Your task to perform on an android device: Open the calendar and show me this week's events? Image 0: 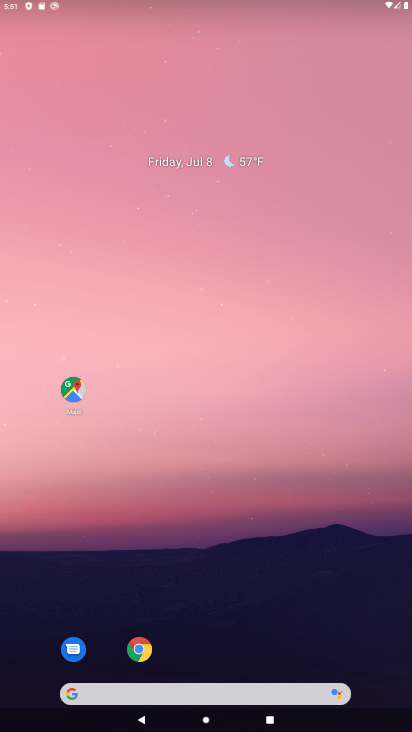
Step 0: click (351, 14)
Your task to perform on an android device: Open the calendar and show me this week's events? Image 1: 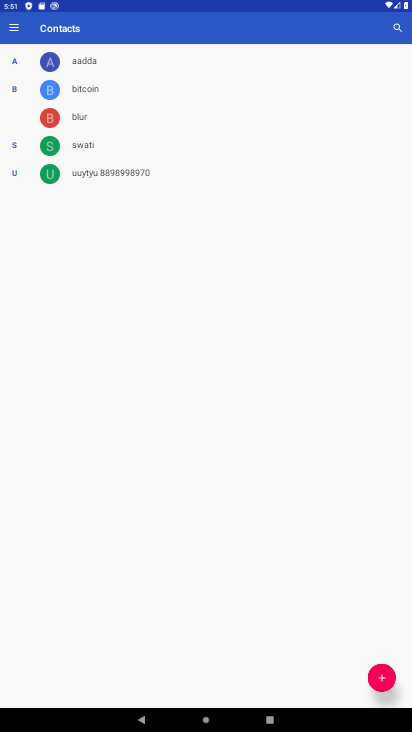
Step 1: press home button
Your task to perform on an android device: Open the calendar and show me this week's events? Image 2: 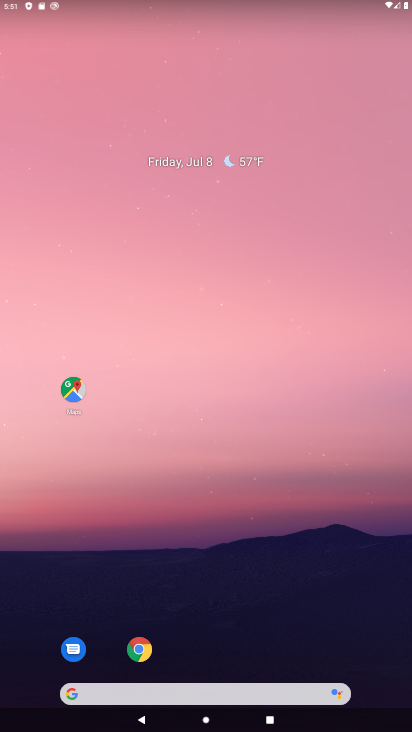
Step 2: drag from (242, 641) to (288, 6)
Your task to perform on an android device: Open the calendar and show me this week's events? Image 3: 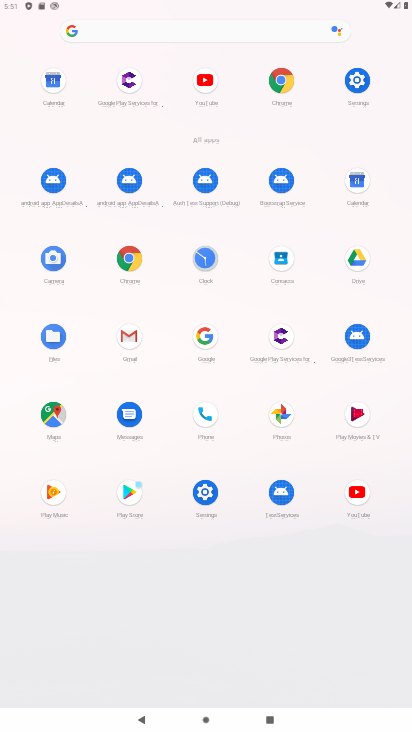
Step 3: click (358, 181)
Your task to perform on an android device: Open the calendar and show me this week's events? Image 4: 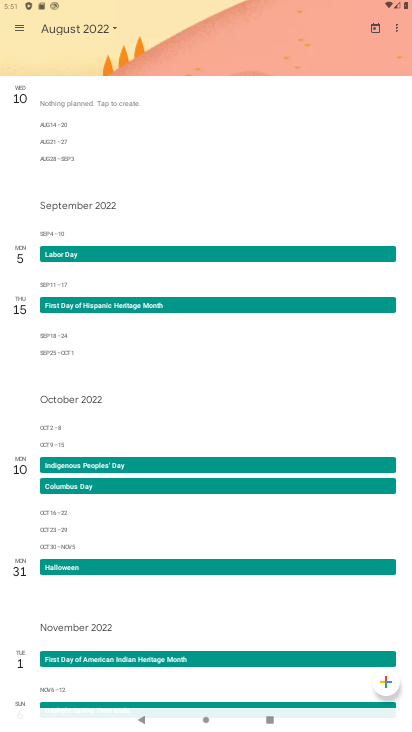
Step 4: click (113, 22)
Your task to perform on an android device: Open the calendar and show me this week's events? Image 5: 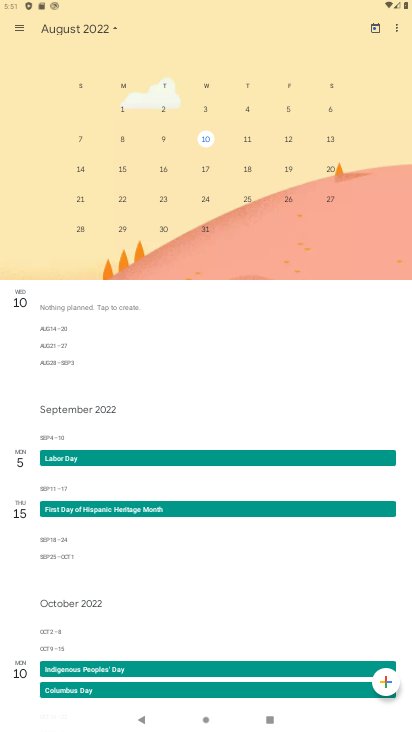
Step 5: drag from (77, 184) to (362, 209)
Your task to perform on an android device: Open the calendar and show me this week's events? Image 6: 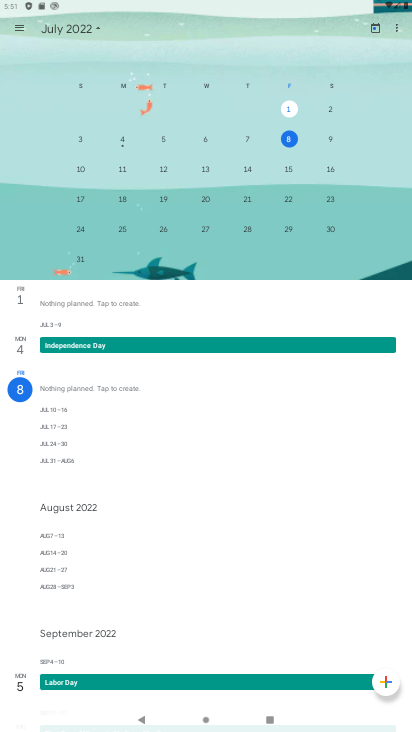
Step 6: click (205, 139)
Your task to perform on an android device: Open the calendar and show me this week's events? Image 7: 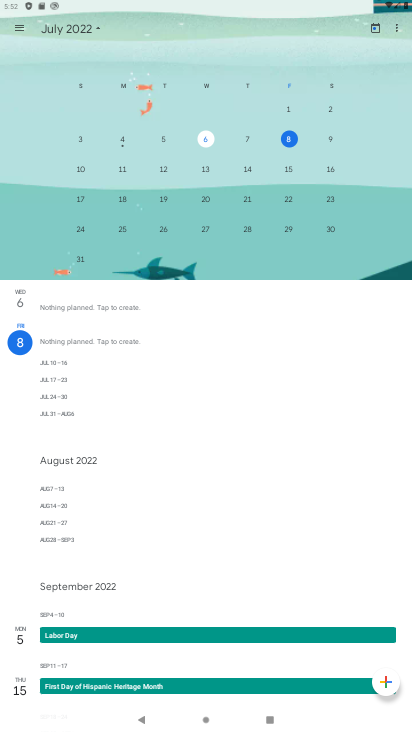
Step 7: click (92, 24)
Your task to perform on an android device: Open the calendar and show me this week's events? Image 8: 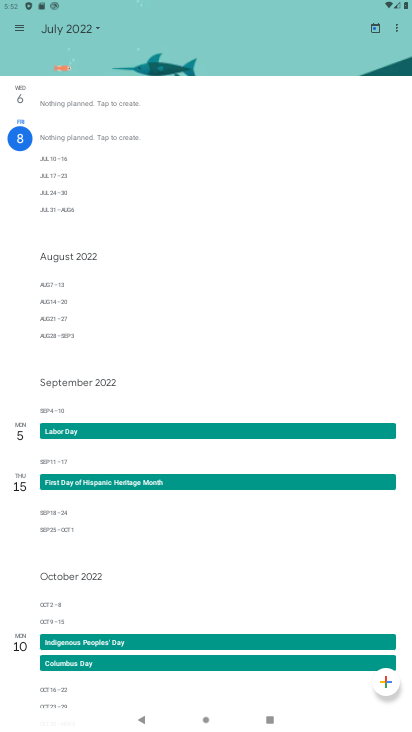
Step 8: click (25, 23)
Your task to perform on an android device: Open the calendar and show me this week's events? Image 9: 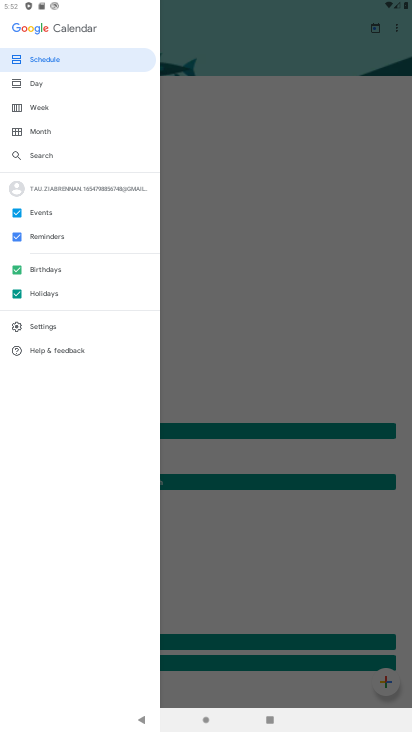
Step 9: click (34, 106)
Your task to perform on an android device: Open the calendar and show me this week's events? Image 10: 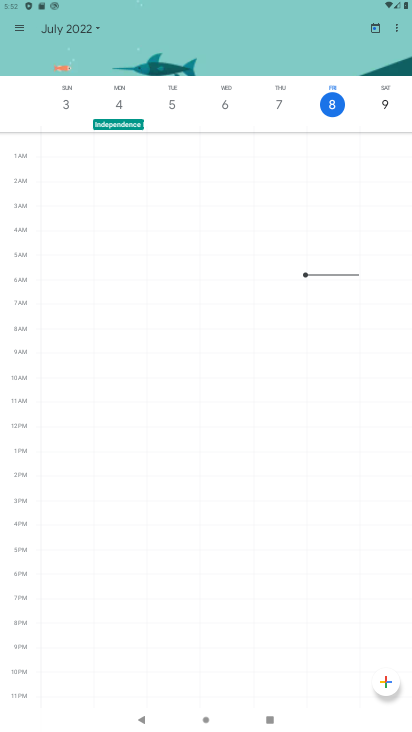
Step 10: task complete